Your task to perform on an android device: Go to eBay Image 0: 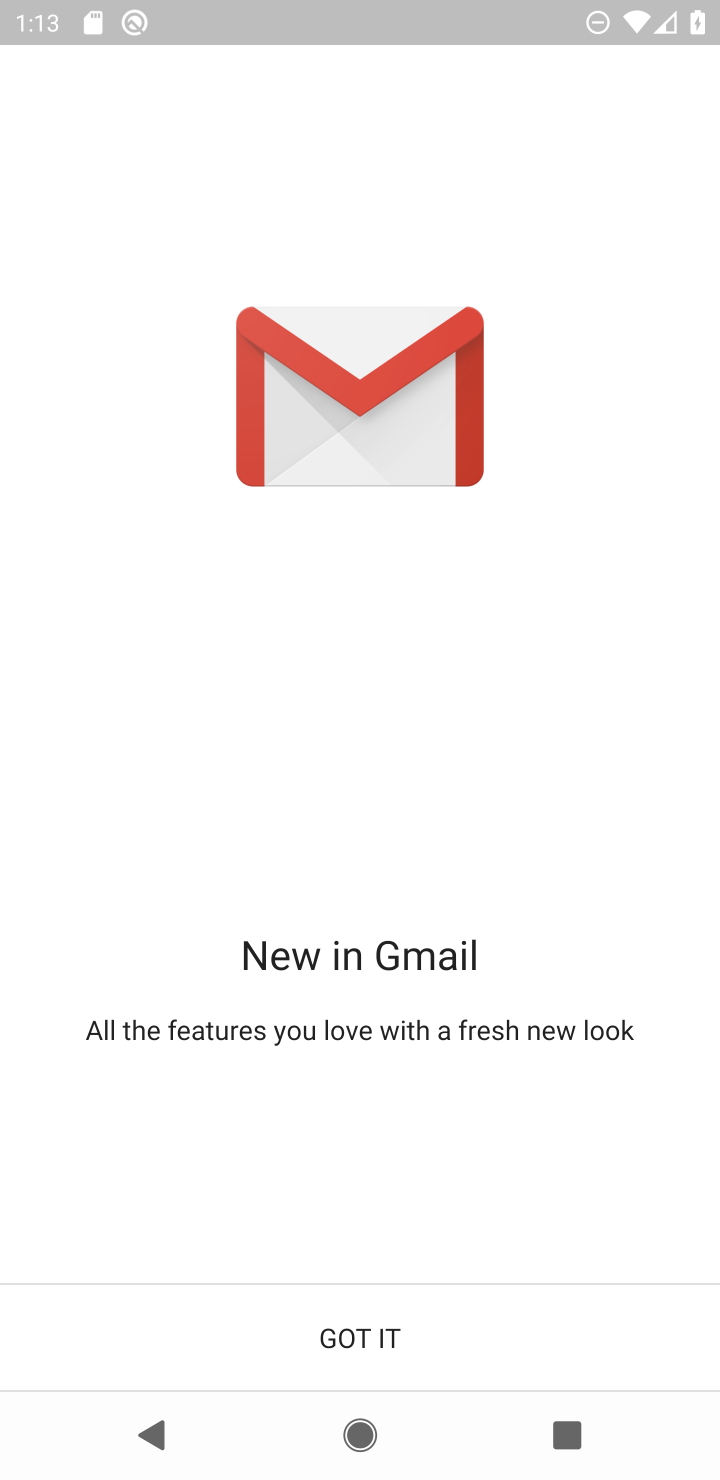
Step 0: click (391, 1344)
Your task to perform on an android device: Go to eBay Image 1: 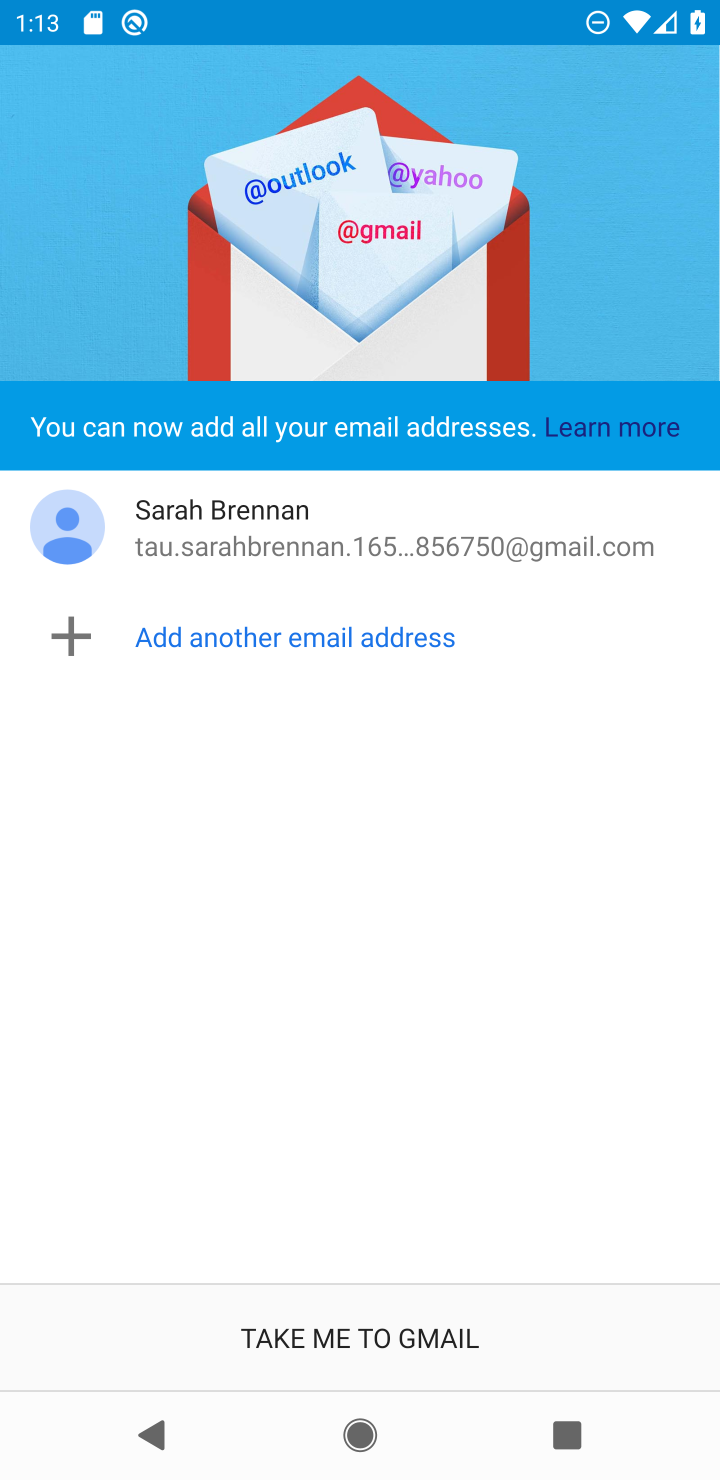
Step 1: press home button
Your task to perform on an android device: Go to eBay Image 2: 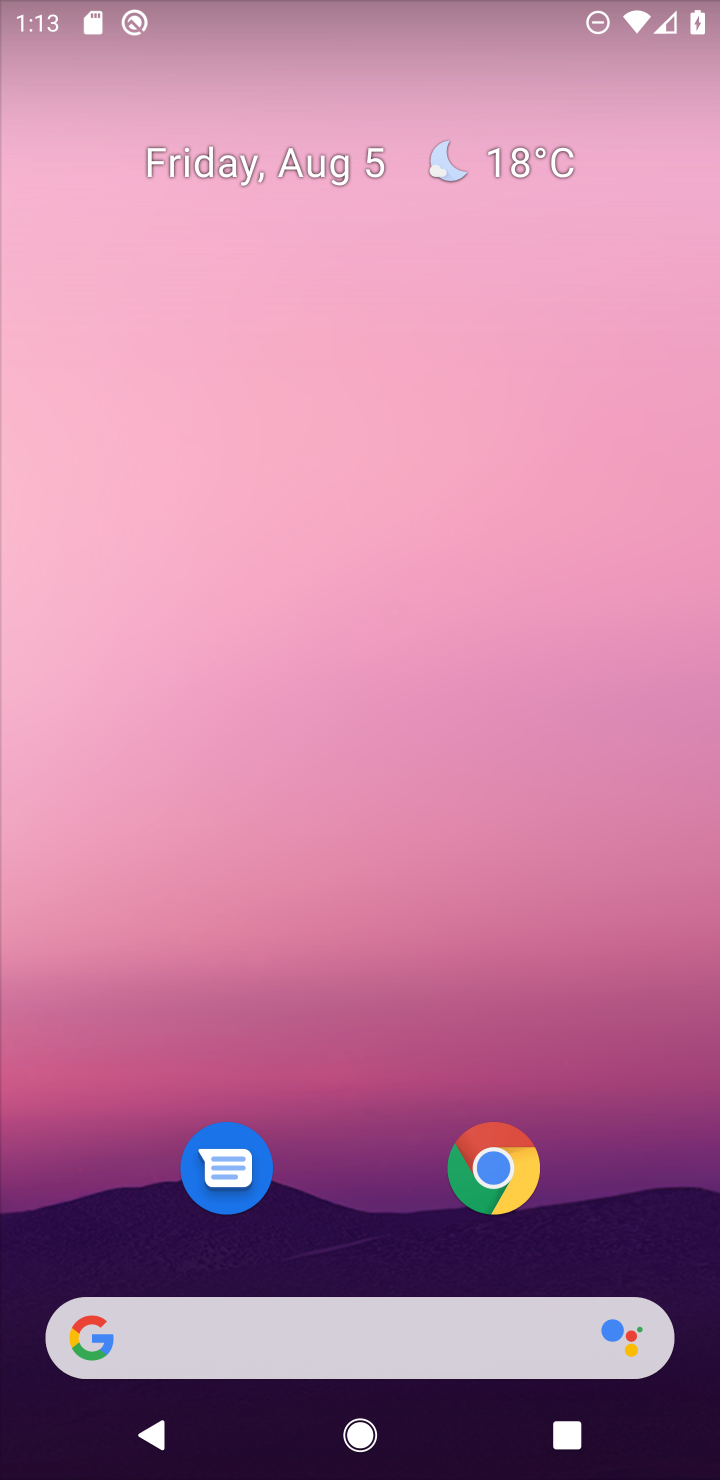
Step 2: click (507, 1158)
Your task to perform on an android device: Go to eBay Image 3: 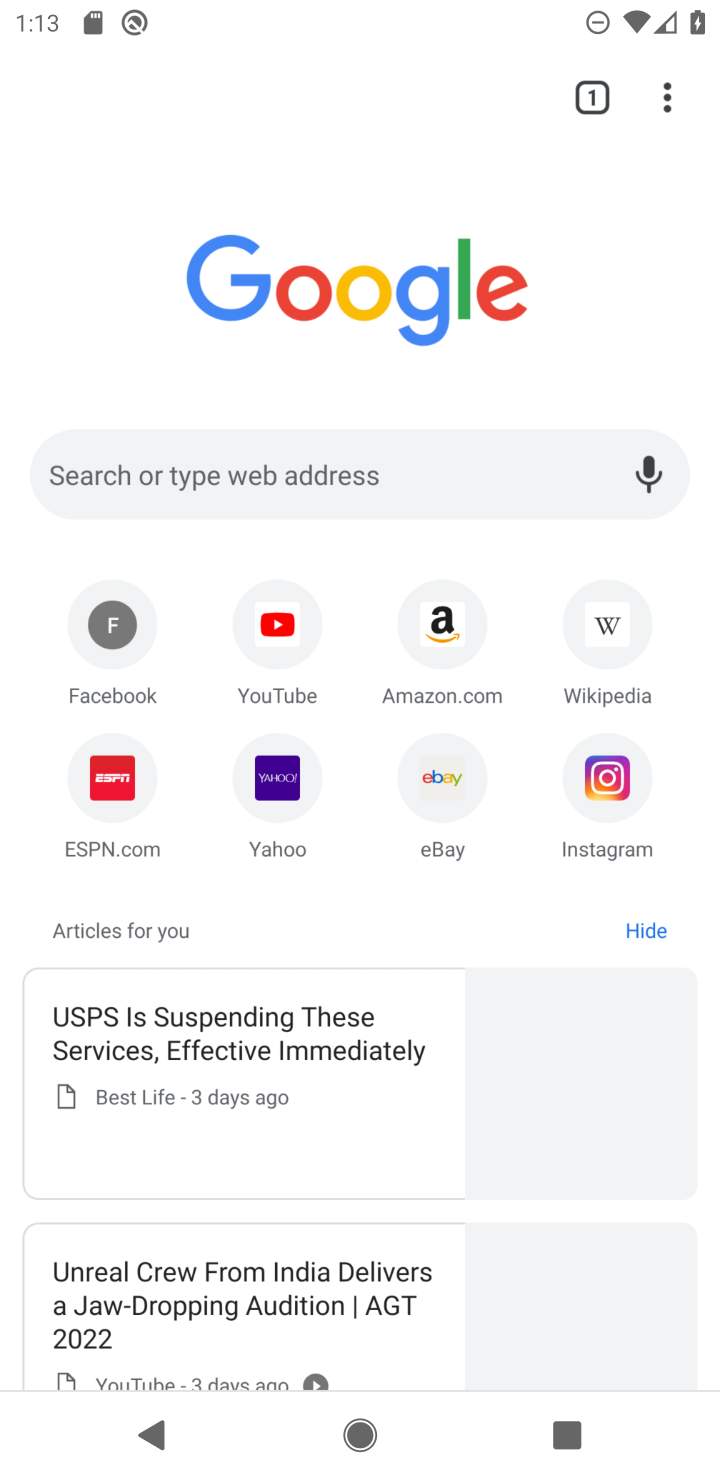
Step 3: click (454, 793)
Your task to perform on an android device: Go to eBay Image 4: 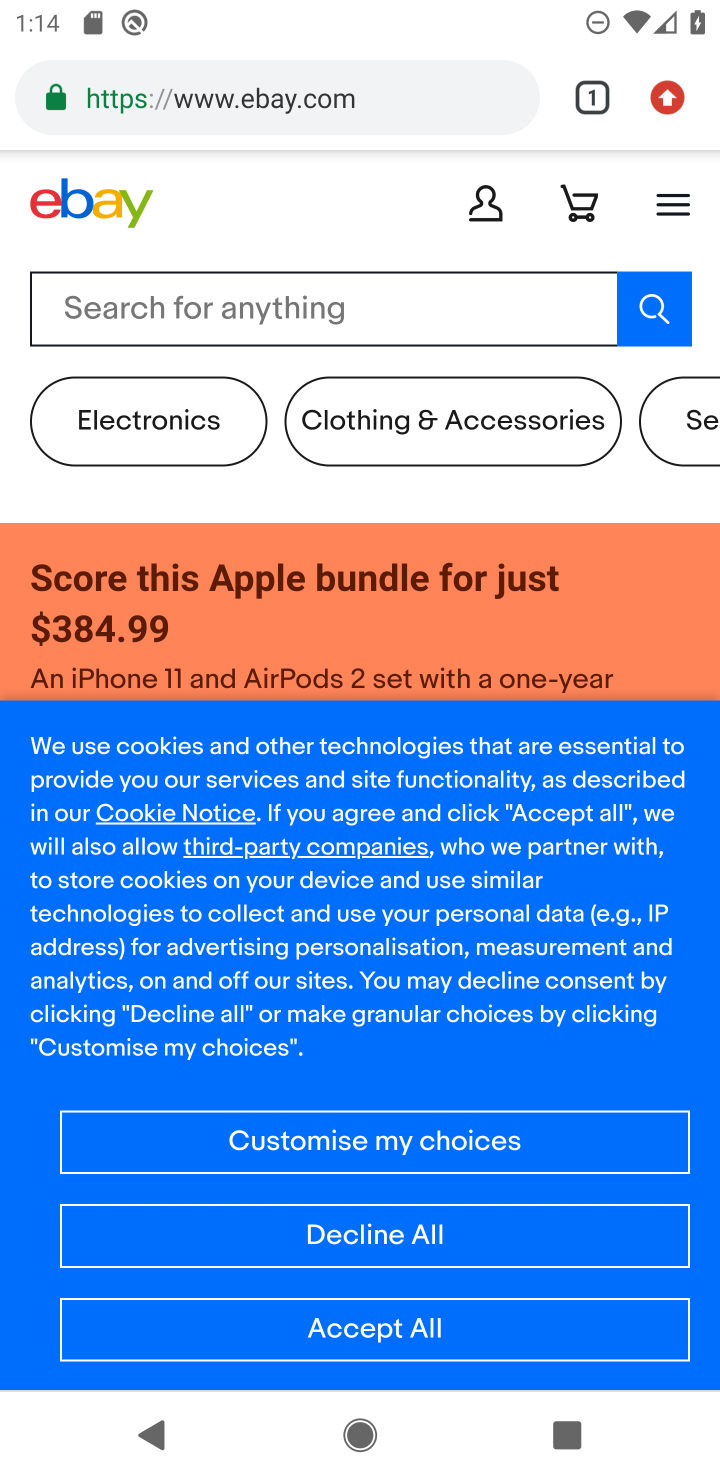
Step 4: task complete